Your task to perform on an android device: Open calendar and show me the first week of next month Image 0: 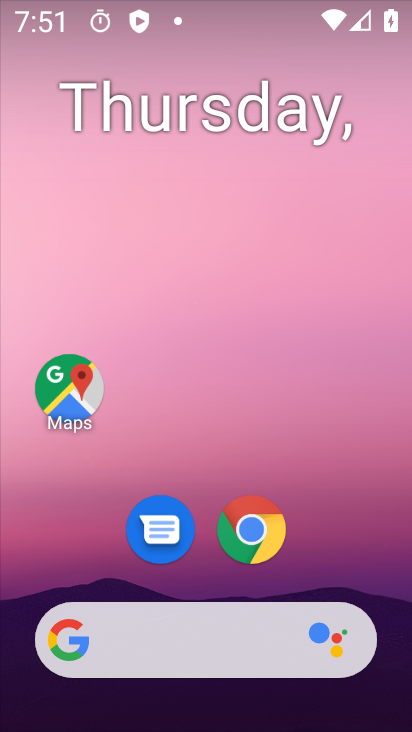
Step 0: drag from (391, 704) to (373, 247)
Your task to perform on an android device: Open calendar and show me the first week of next month Image 1: 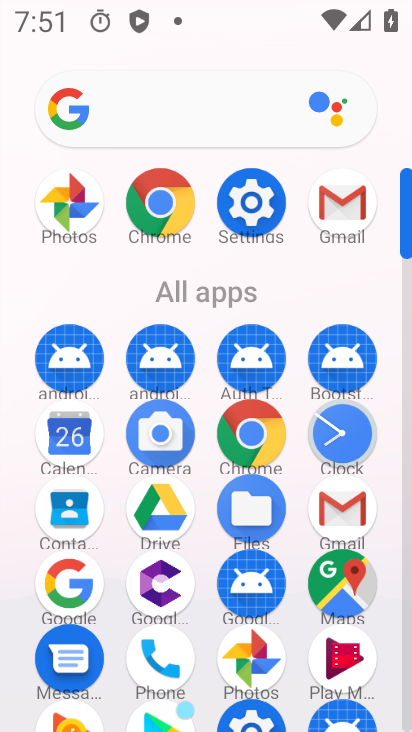
Step 1: click (47, 432)
Your task to perform on an android device: Open calendar and show me the first week of next month Image 2: 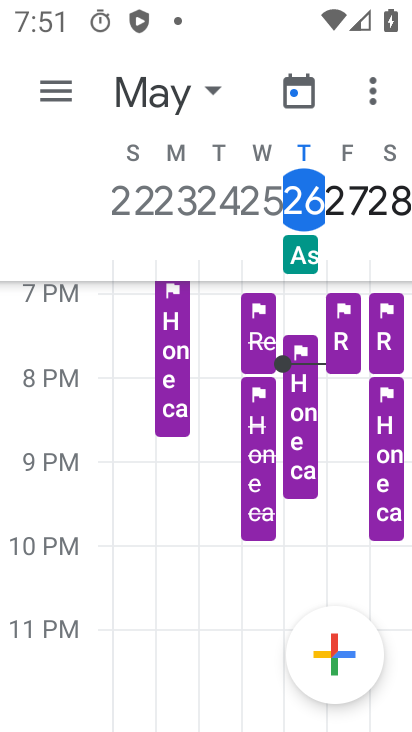
Step 2: click (209, 88)
Your task to perform on an android device: Open calendar and show me the first week of next month Image 3: 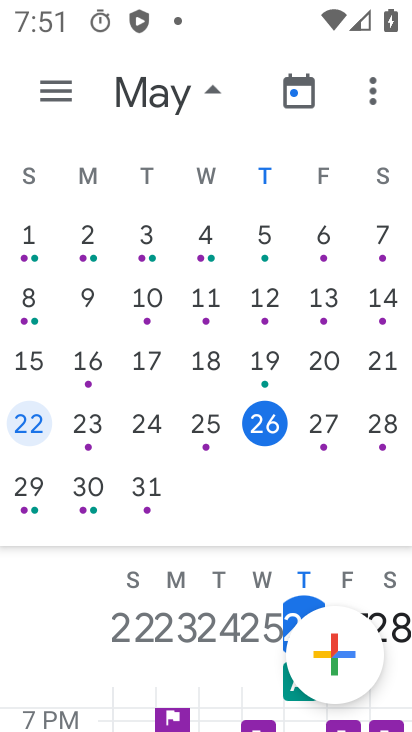
Step 3: drag from (409, 316) to (82, 286)
Your task to perform on an android device: Open calendar and show me the first week of next month Image 4: 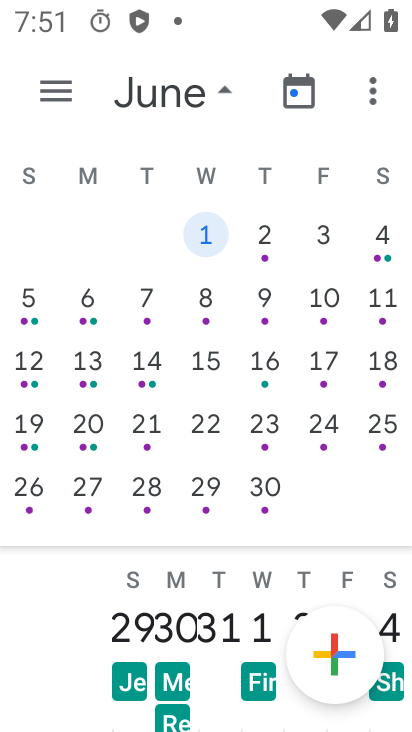
Step 4: click (259, 237)
Your task to perform on an android device: Open calendar and show me the first week of next month Image 5: 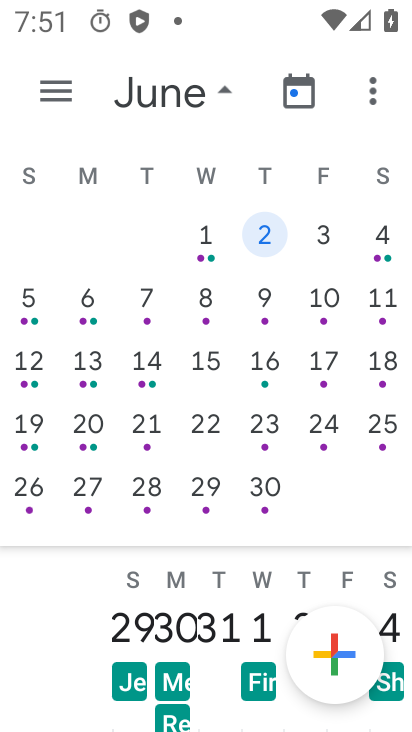
Step 5: click (55, 88)
Your task to perform on an android device: Open calendar and show me the first week of next month Image 6: 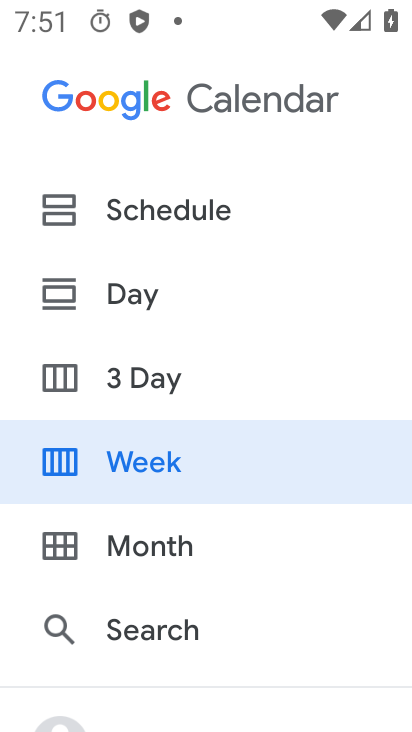
Step 6: click (112, 469)
Your task to perform on an android device: Open calendar and show me the first week of next month Image 7: 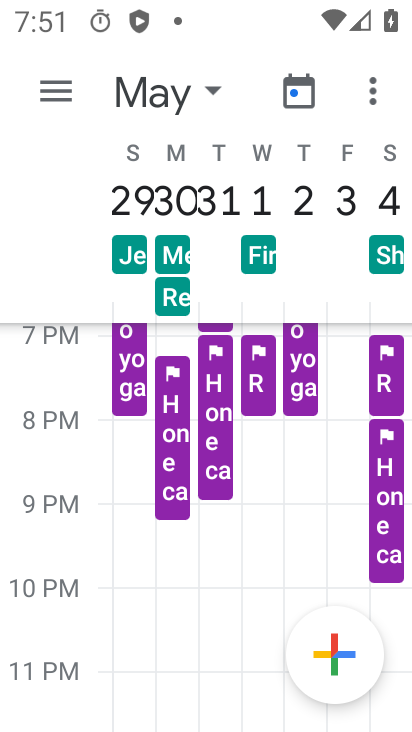
Step 7: task complete